Your task to perform on an android device: Show me recent news Image 0: 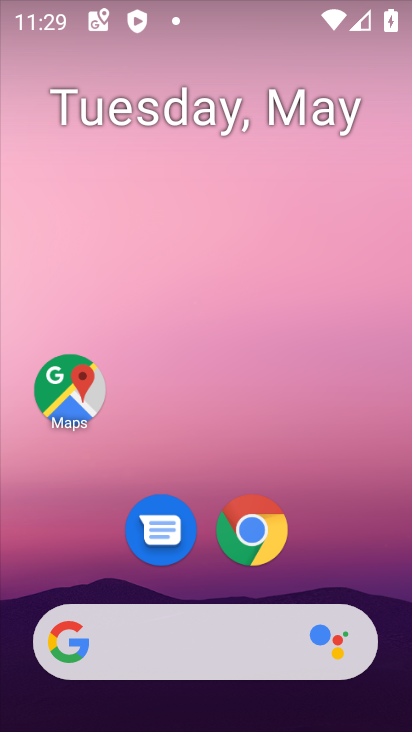
Step 0: click (249, 536)
Your task to perform on an android device: Show me recent news Image 1: 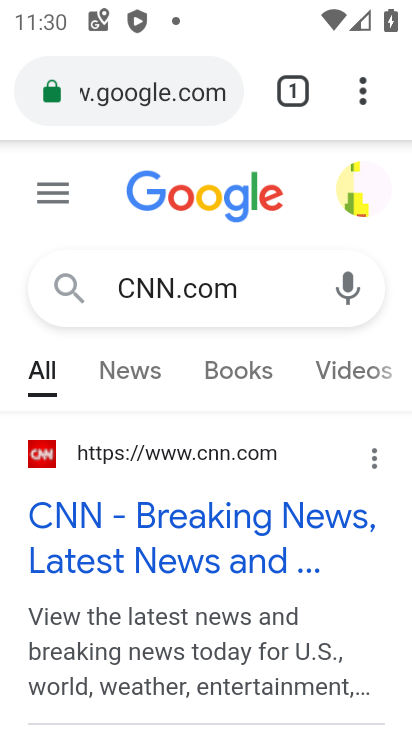
Step 1: click (149, 83)
Your task to perform on an android device: Show me recent news Image 2: 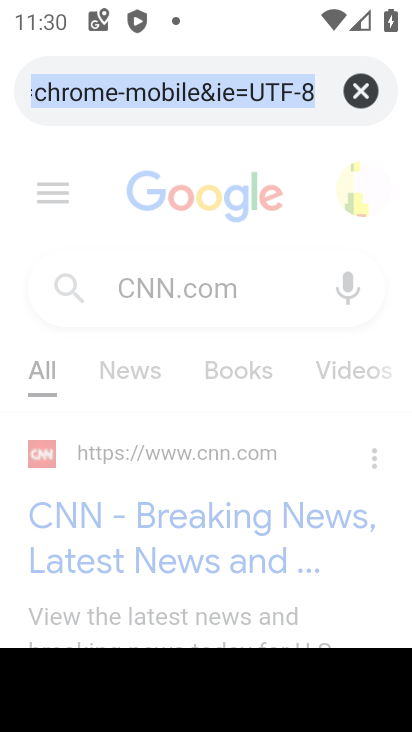
Step 2: type "recent news"
Your task to perform on an android device: Show me recent news Image 3: 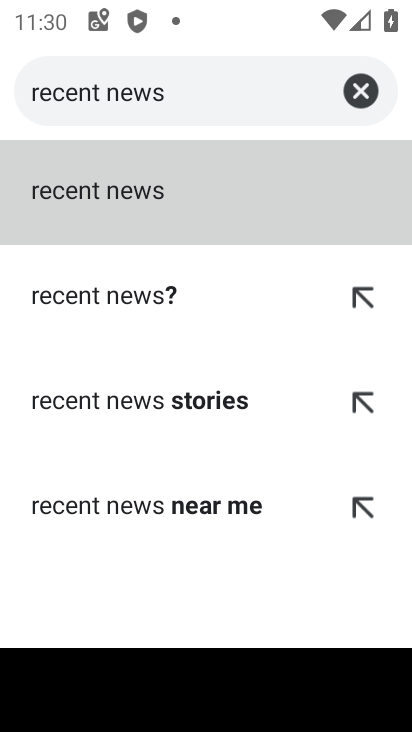
Step 3: click (151, 174)
Your task to perform on an android device: Show me recent news Image 4: 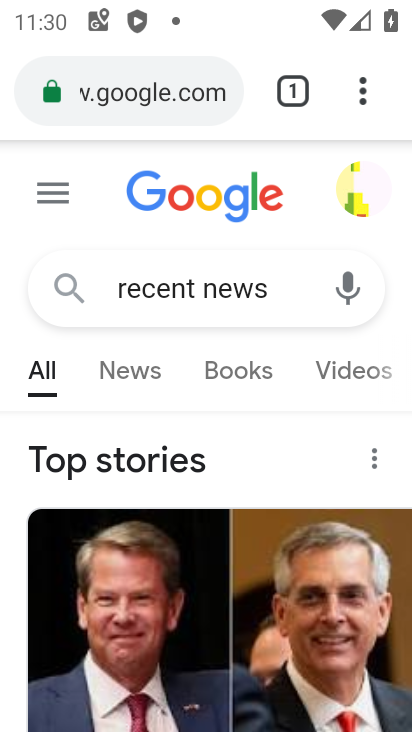
Step 4: task complete